Your task to perform on an android device: What's on my calendar today? Image 0: 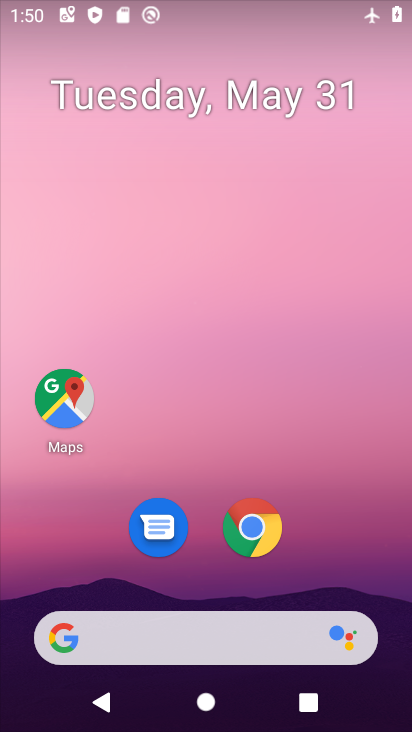
Step 0: drag from (350, 527) to (366, 82)
Your task to perform on an android device: What's on my calendar today? Image 1: 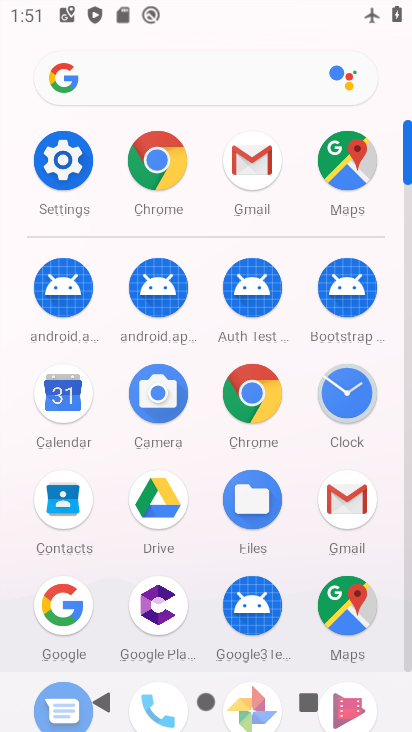
Step 1: click (45, 405)
Your task to perform on an android device: What's on my calendar today? Image 2: 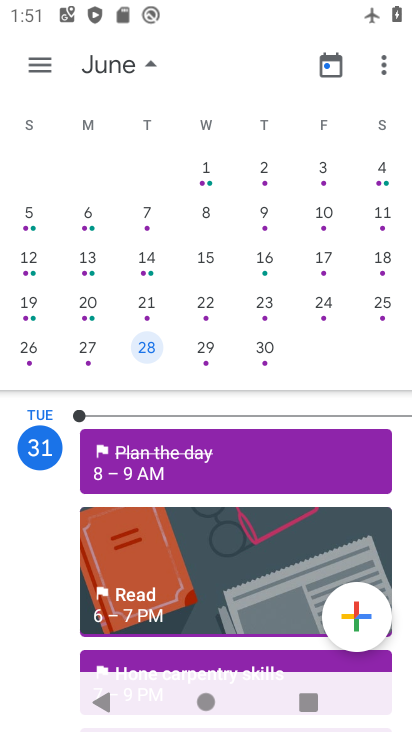
Step 2: task complete